Your task to perform on an android device: open chrome and create a bookmark for the current page Image 0: 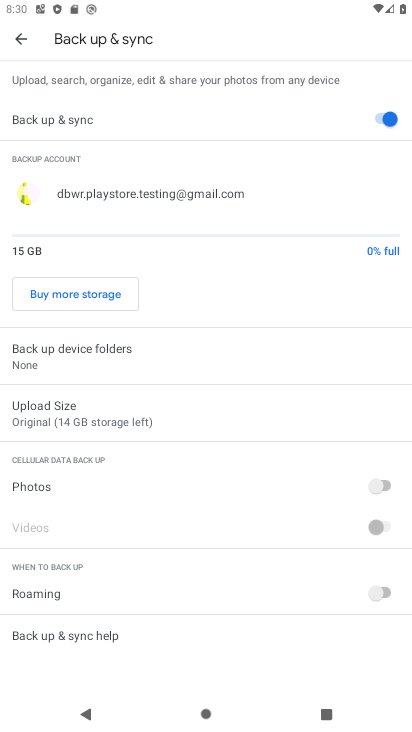
Step 0: press home button
Your task to perform on an android device: open chrome and create a bookmark for the current page Image 1: 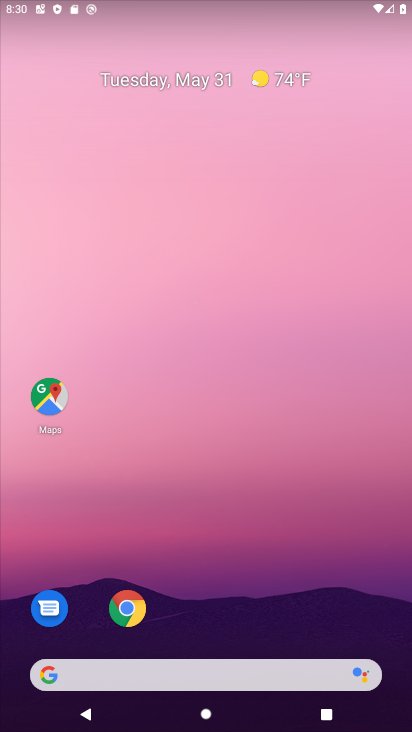
Step 1: click (140, 614)
Your task to perform on an android device: open chrome and create a bookmark for the current page Image 2: 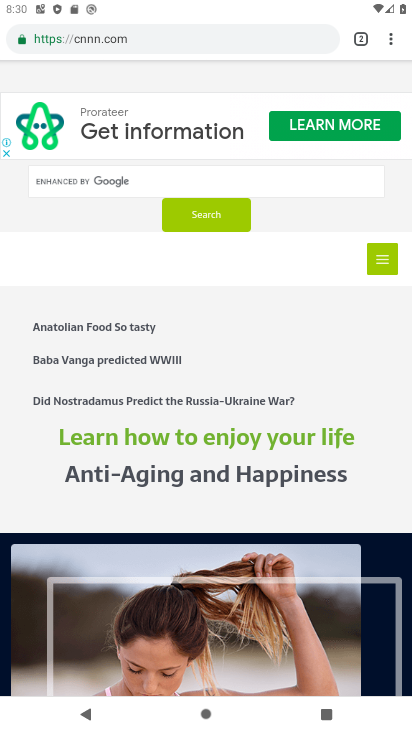
Step 2: click (385, 30)
Your task to perform on an android device: open chrome and create a bookmark for the current page Image 3: 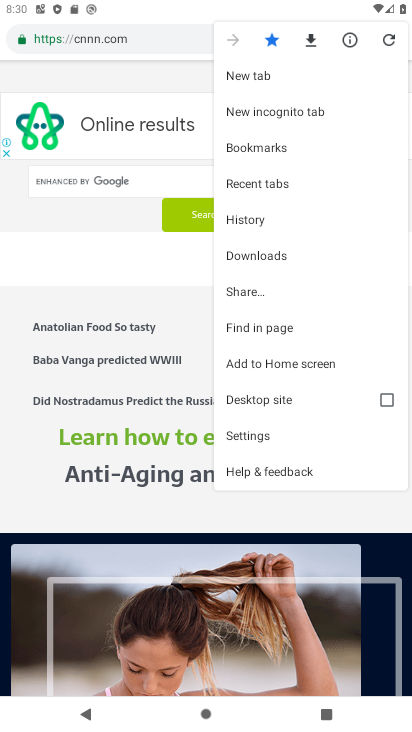
Step 3: task complete